Your task to perform on an android device: Turn off the flashlight Image 0: 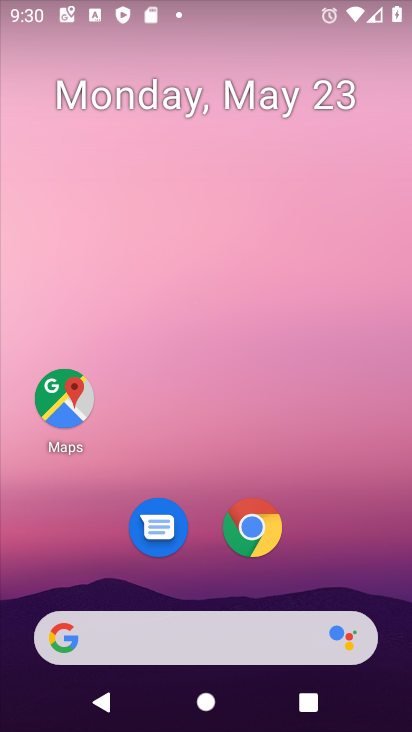
Step 0: drag from (349, 555) to (274, 57)
Your task to perform on an android device: Turn off the flashlight Image 1: 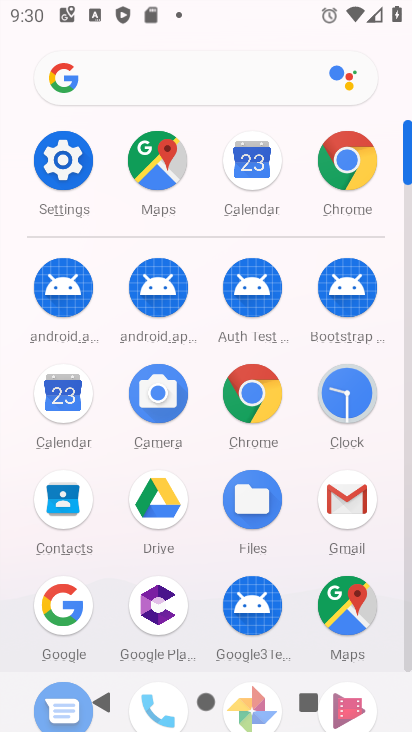
Step 1: drag from (16, 560) to (15, 276)
Your task to perform on an android device: Turn off the flashlight Image 2: 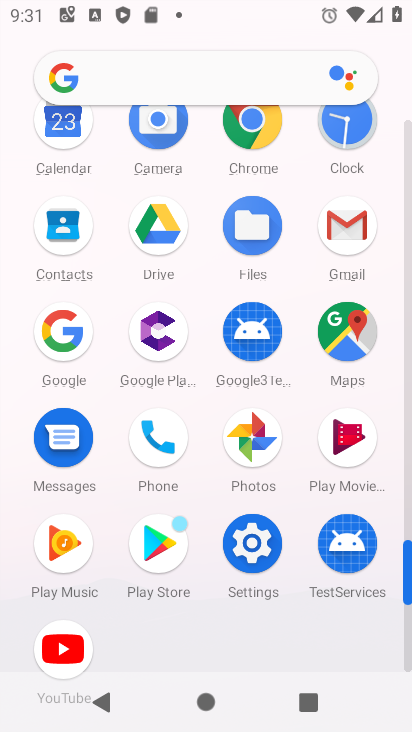
Step 2: click (247, 537)
Your task to perform on an android device: Turn off the flashlight Image 3: 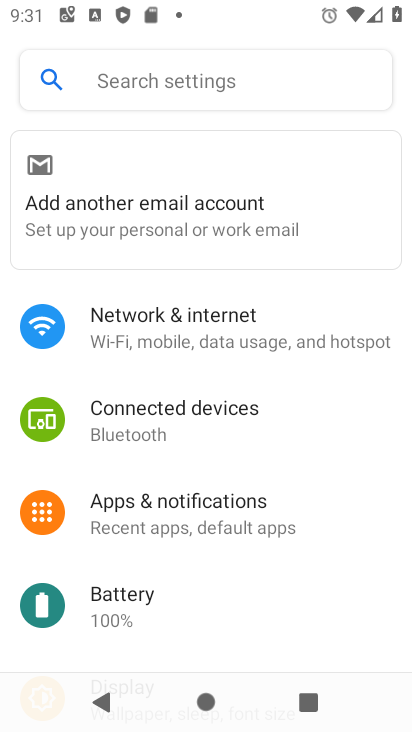
Step 3: click (206, 315)
Your task to perform on an android device: Turn off the flashlight Image 4: 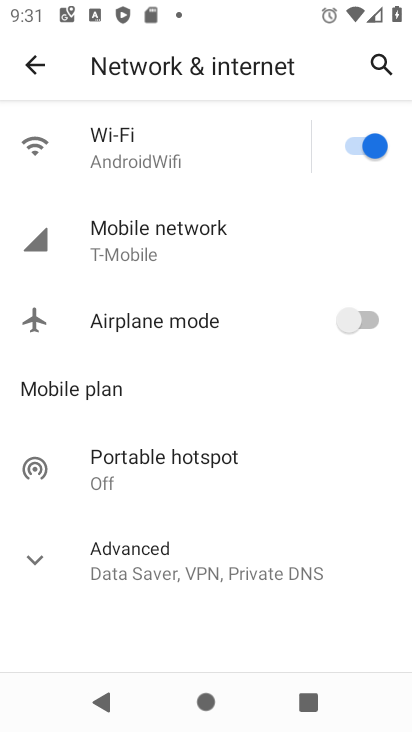
Step 4: click (56, 559)
Your task to perform on an android device: Turn off the flashlight Image 5: 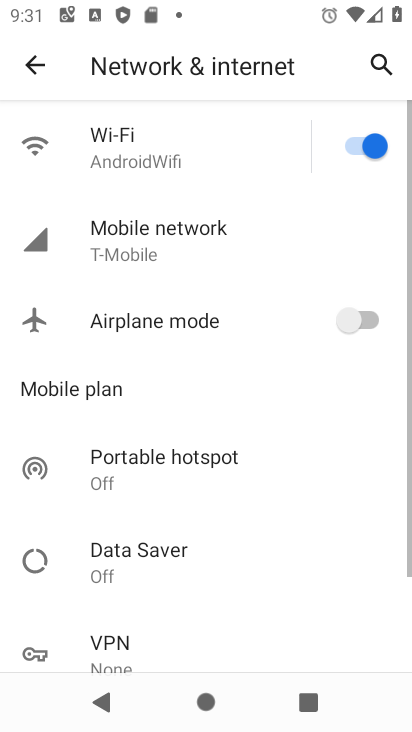
Step 5: task complete